Your task to perform on an android device: Open Maps and search for coffee Image 0: 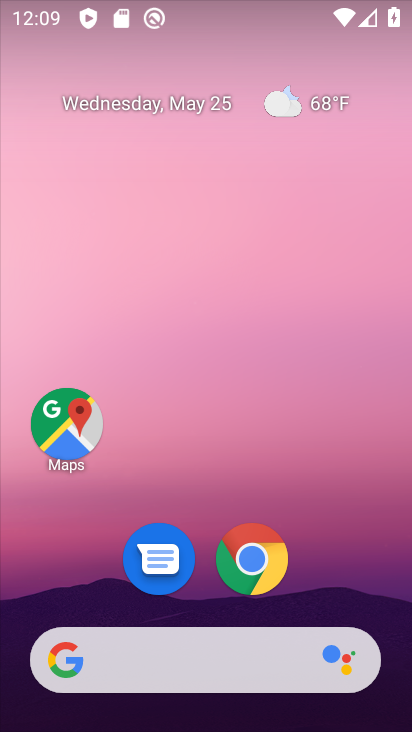
Step 0: click (66, 423)
Your task to perform on an android device: Open Maps and search for coffee Image 1: 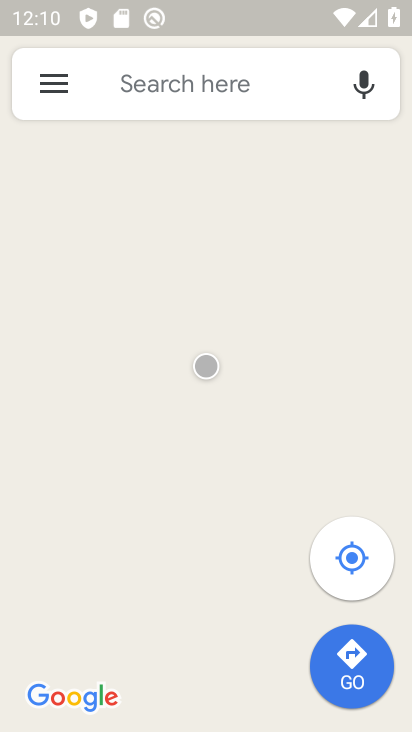
Step 1: click (57, 81)
Your task to perform on an android device: Open Maps and search for coffee Image 2: 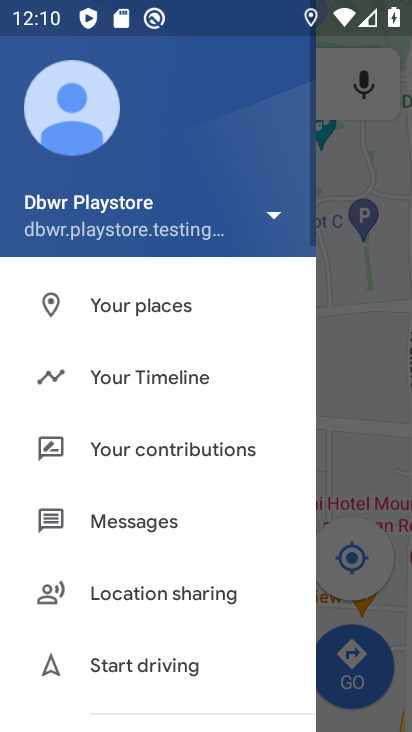
Step 2: click (392, 244)
Your task to perform on an android device: Open Maps and search for coffee Image 3: 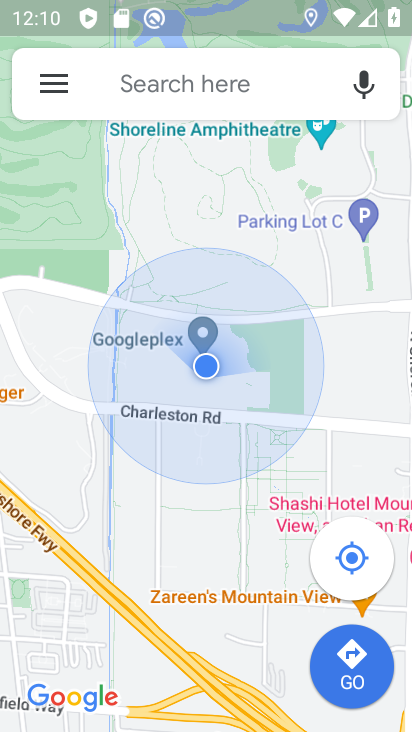
Step 3: click (183, 72)
Your task to perform on an android device: Open Maps and search for coffee Image 4: 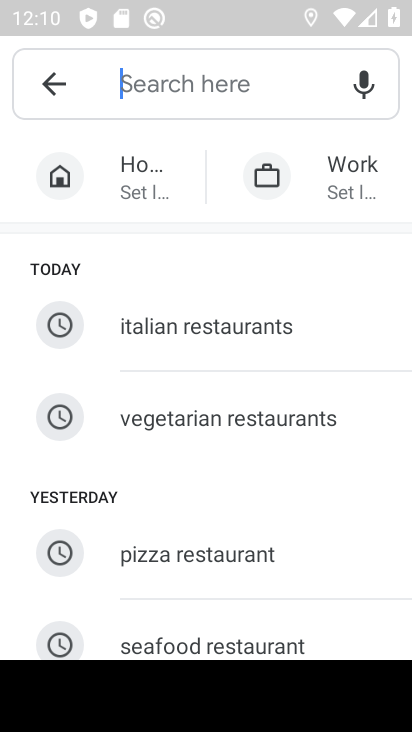
Step 4: type "coffee"
Your task to perform on an android device: Open Maps and search for coffee Image 5: 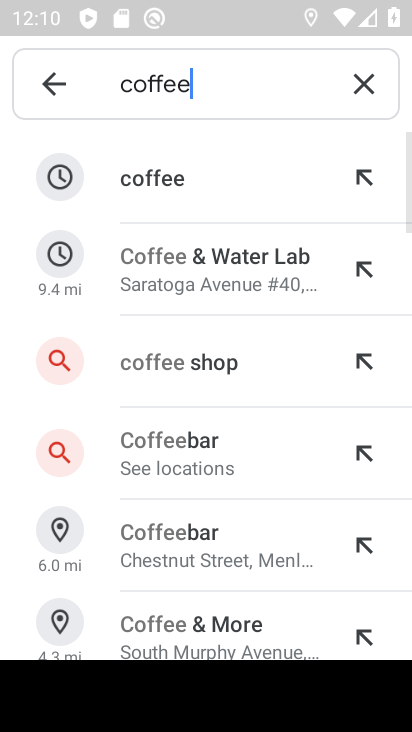
Step 5: click (164, 170)
Your task to perform on an android device: Open Maps and search for coffee Image 6: 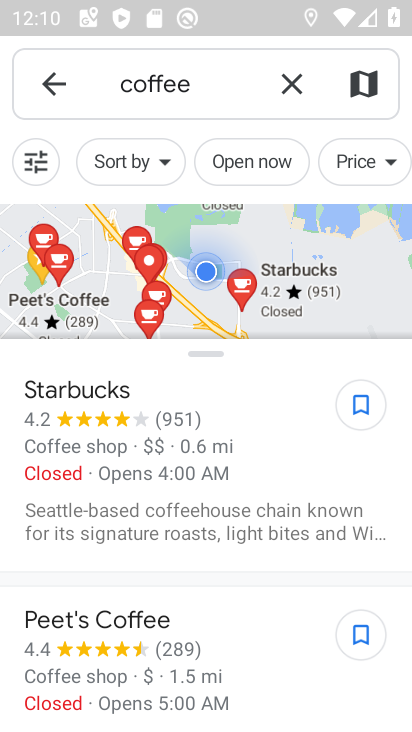
Step 6: task complete